Your task to perform on an android device: Do I have any events today? Image 0: 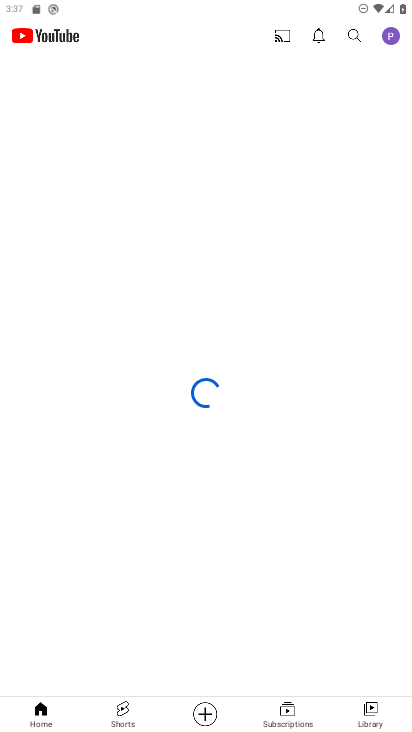
Step 0: press home button
Your task to perform on an android device: Do I have any events today? Image 1: 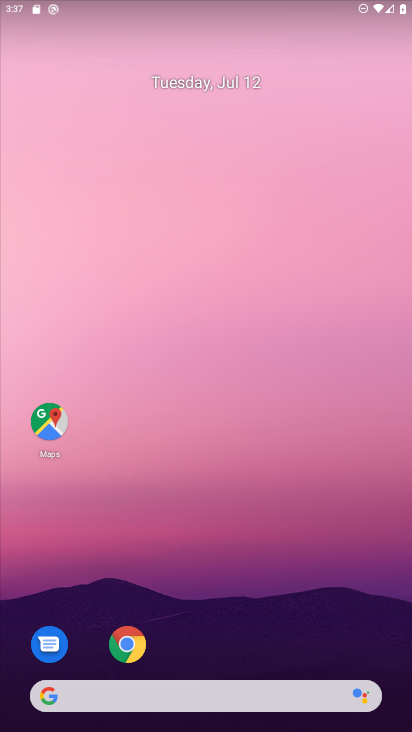
Step 1: drag from (249, 650) to (225, 130)
Your task to perform on an android device: Do I have any events today? Image 2: 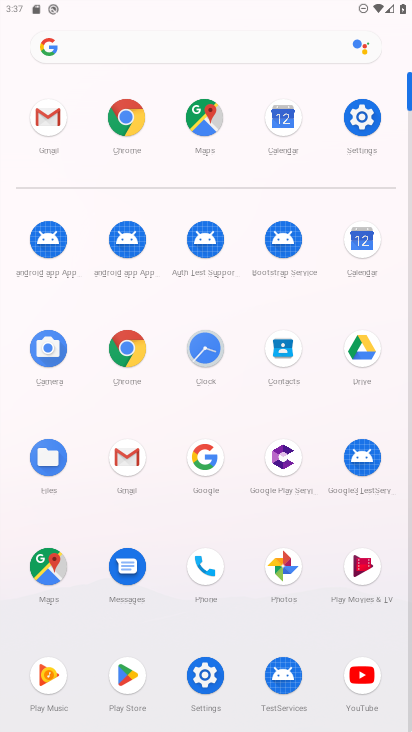
Step 2: click (366, 238)
Your task to perform on an android device: Do I have any events today? Image 3: 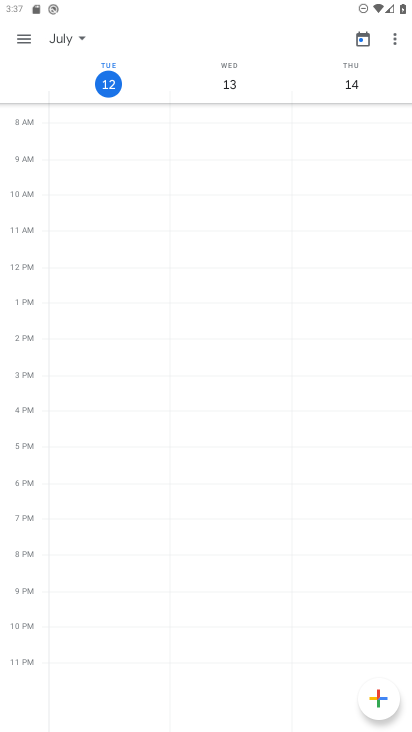
Step 3: task complete